Your task to perform on an android device: turn on improve location accuracy Image 0: 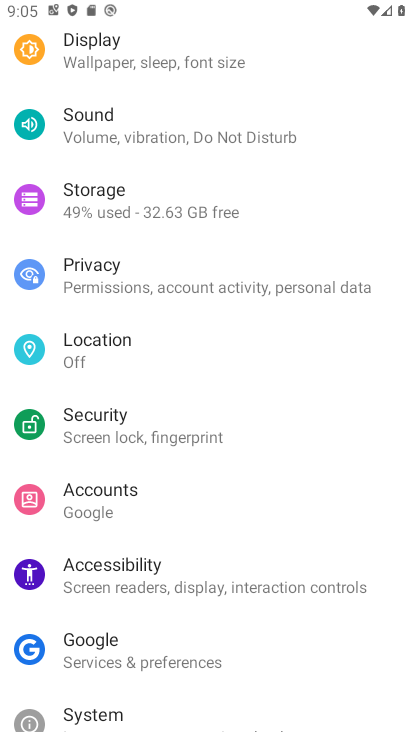
Step 0: click (149, 342)
Your task to perform on an android device: turn on improve location accuracy Image 1: 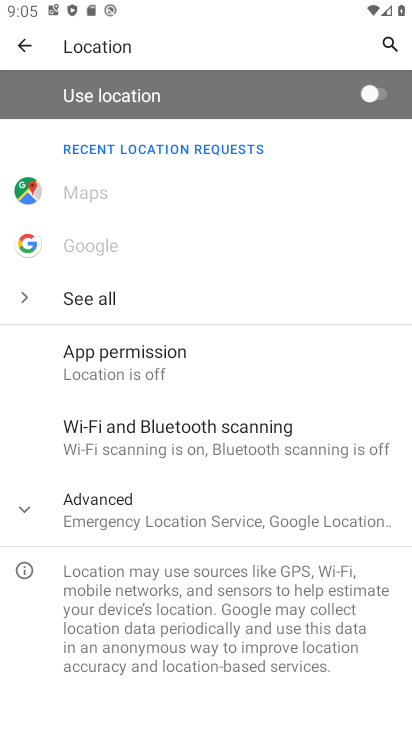
Step 1: click (145, 530)
Your task to perform on an android device: turn on improve location accuracy Image 2: 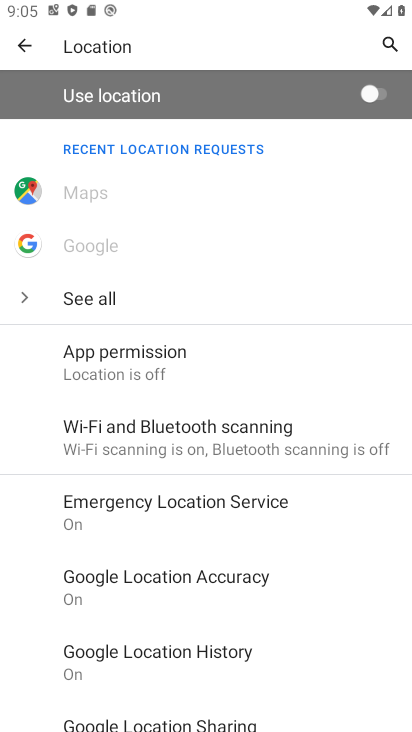
Step 2: click (281, 567)
Your task to perform on an android device: turn on improve location accuracy Image 3: 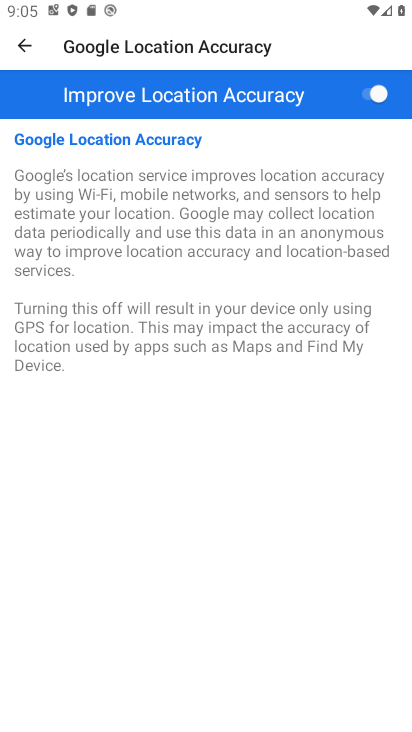
Step 3: task complete